Your task to perform on an android device: change notification settings in the gmail app Image 0: 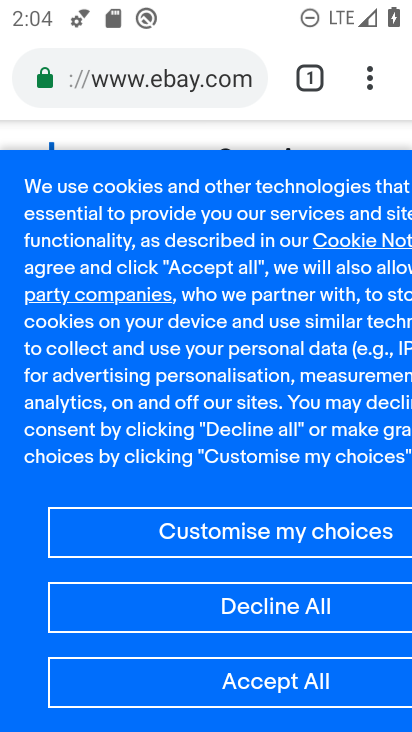
Step 0: press home button
Your task to perform on an android device: change notification settings in the gmail app Image 1: 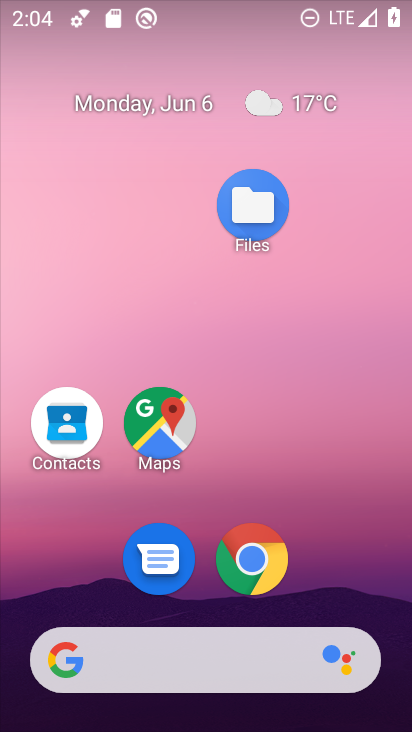
Step 1: drag from (261, 628) to (261, 202)
Your task to perform on an android device: change notification settings in the gmail app Image 2: 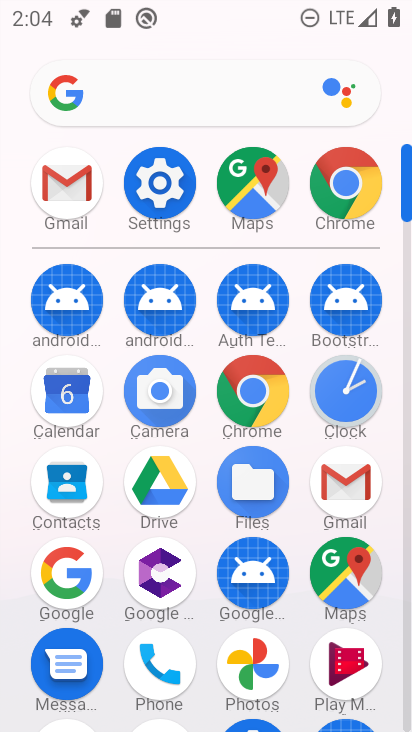
Step 2: click (346, 500)
Your task to perform on an android device: change notification settings in the gmail app Image 3: 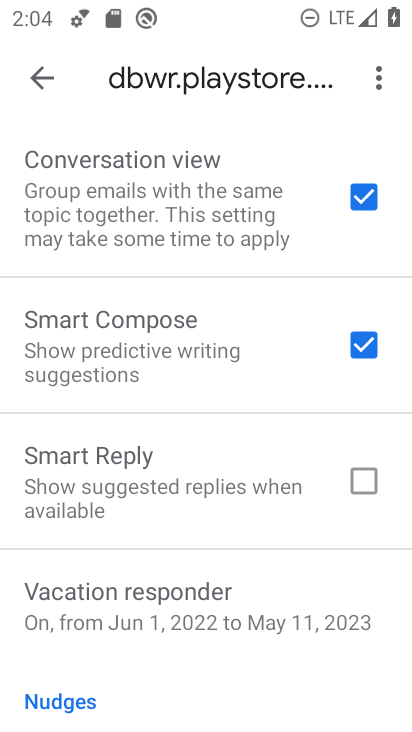
Step 3: drag from (280, 366) to (255, 596)
Your task to perform on an android device: change notification settings in the gmail app Image 4: 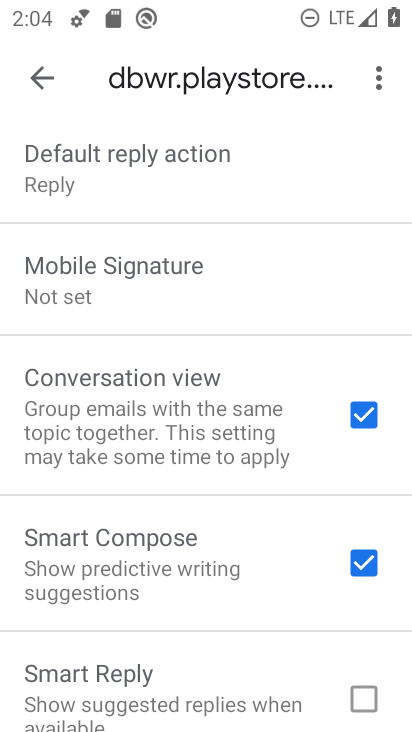
Step 4: click (48, 91)
Your task to perform on an android device: change notification settings in the gmail app Image 5: 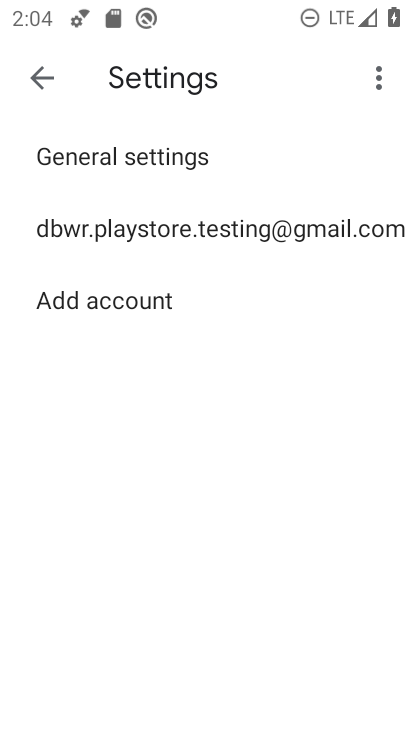
Step 5: click (179, 154)
Your task to perform on an android device: change notification settings in the gmail app Image 6: 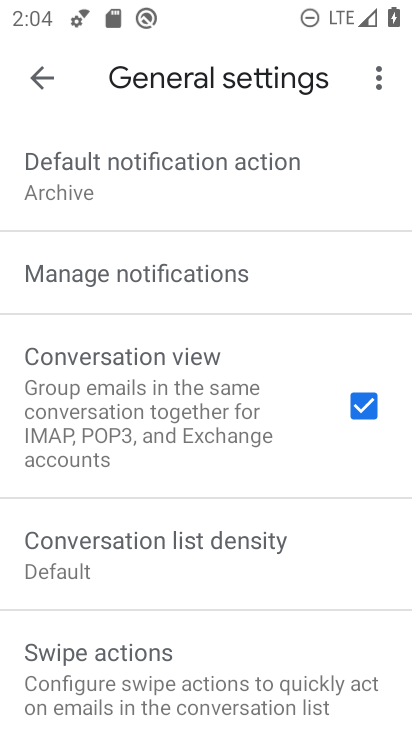
Step 6: click (227, 285)
Your task to perform on an android device: change notification settings in the gmail app Image 7: 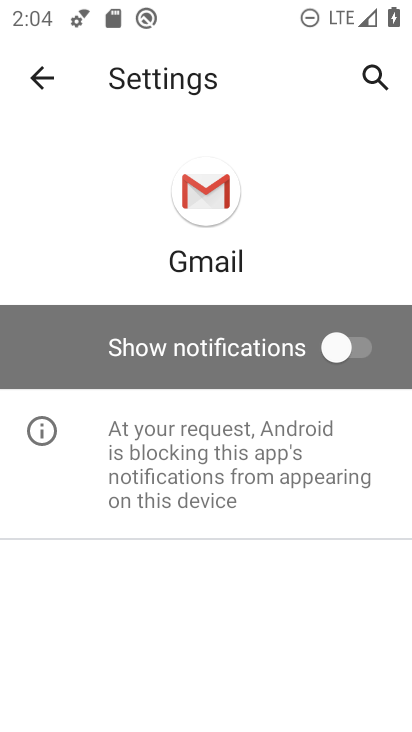
Step 7: click (298, 333)
Your task to perform on an android device: change notification settings in the gmail app Image 8: 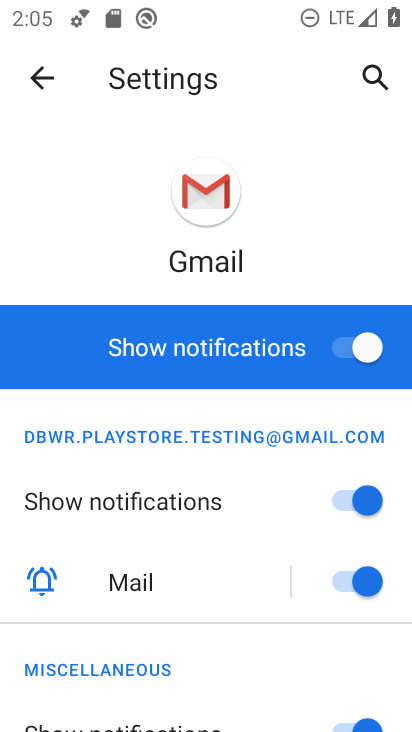
Step 8: task complete